Your task to perform on an android device: Open Maps and search for coffee Image 0: 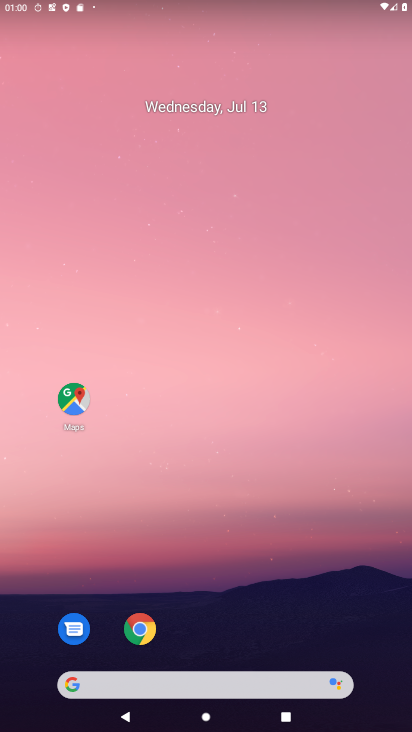
Step 0: click (85, 387)
Your task to perform on an android device: Open Maps and search for coffee Image 1: 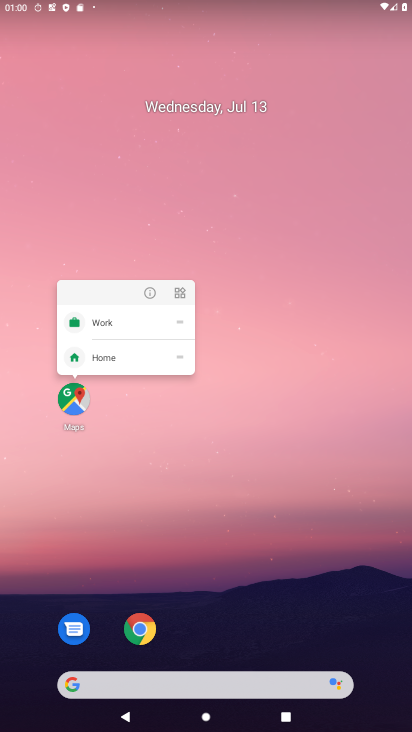
Step 1: click (85, 387)
Your task to perform on an android device: Open Maps and search for coffee Image 2: 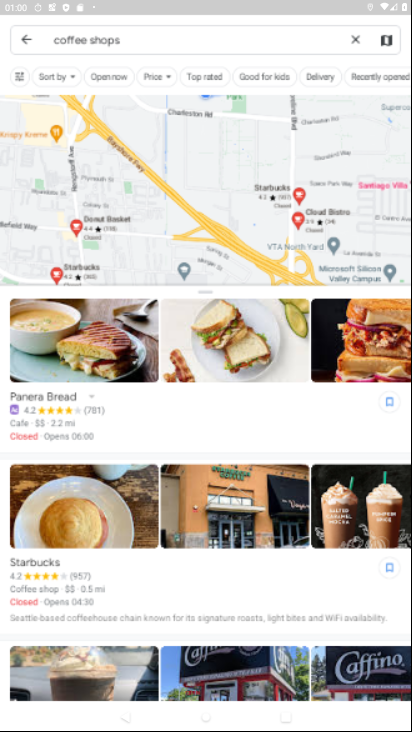
Step 2: click (346, 32)
Your task to perform on an android device: Open Maps and search for coffee Image 3: 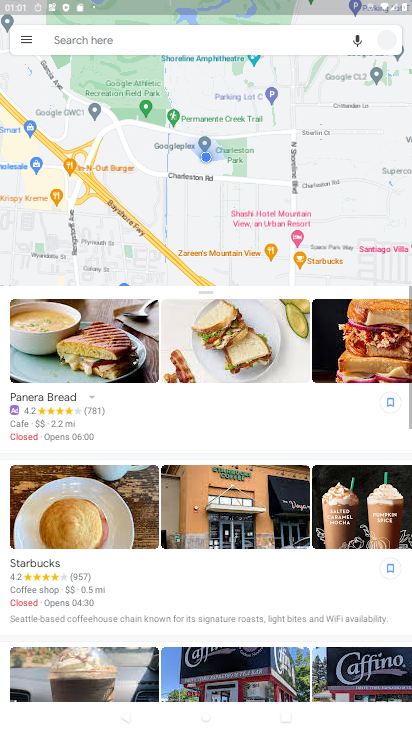
Step 3: click (248, 40)
Your task to perform on an android device: Open Maps and search for coffee Image 4: 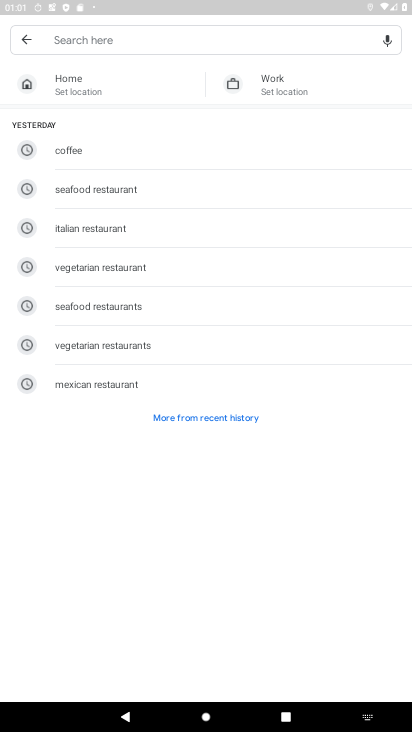
Step 4: type "coffee"
Your task to perform on an android device: Open Maps and search for coffee Image 5: 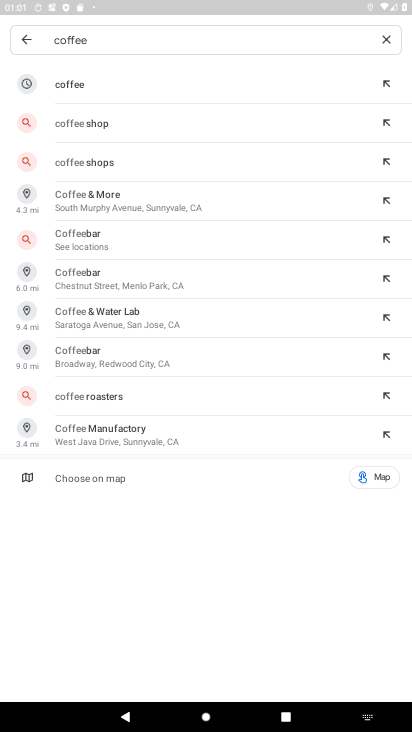
Step 5: click (105, 83)
Your task to perform on an android device: Open Maps and search for coffee Image 6: 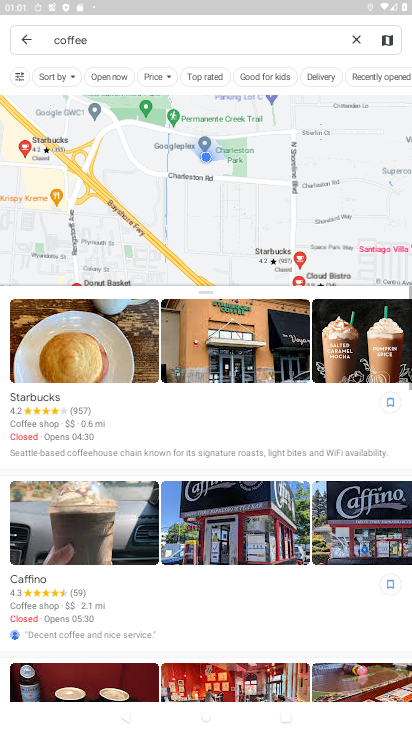
Step 6: task complete